Your task to perform on an android device: Go to Google maps Image 0: 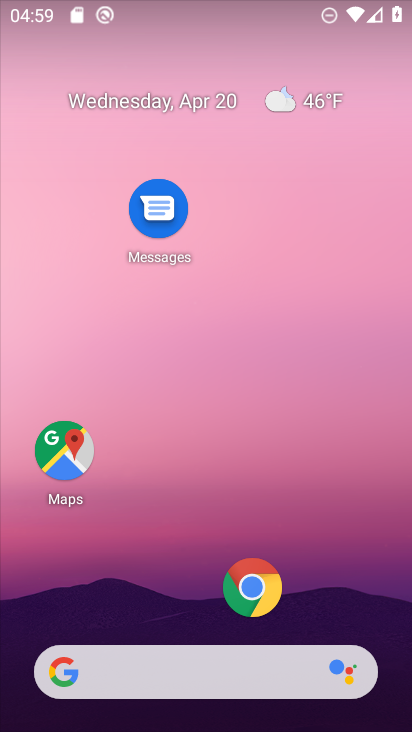
Step 0: click (52, 454)
Your task to perform on an android device: Go to Google maps Image 1: 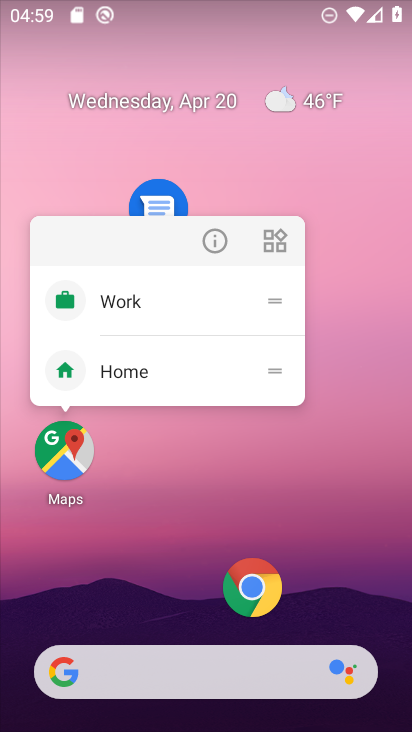
Step 1: click (60, 457)
Your task to perform on an android device: Go to Google maps Image 2: 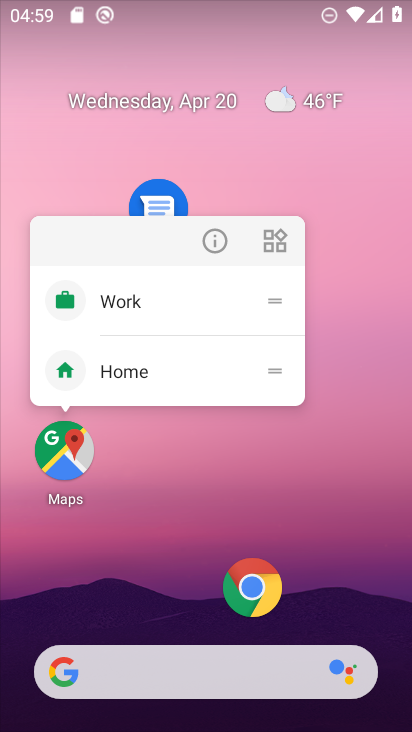
Step 2: click (73, 478)
Your task to perform on an android device: Go to Google maps Image 3: 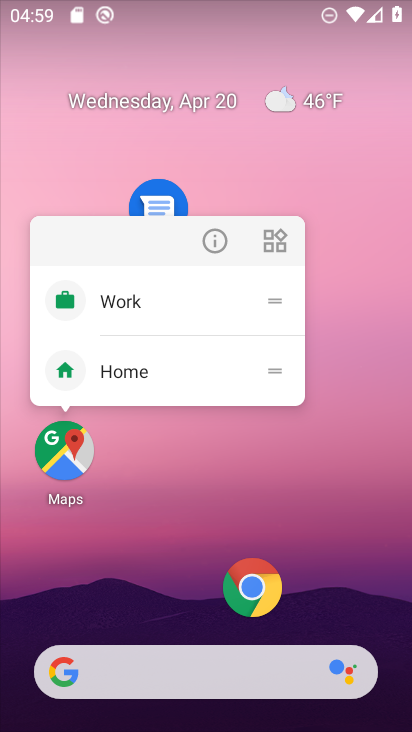
Step 3: click (73, 478)
Your task to perform on an android device: Go to Google maps Image 4: 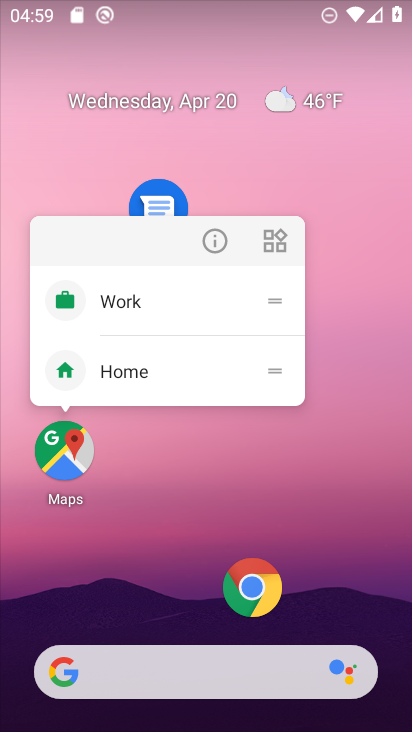
Step 4: click (68, 447)
Your task to perform on an android device: Go to Google maps Image 5: 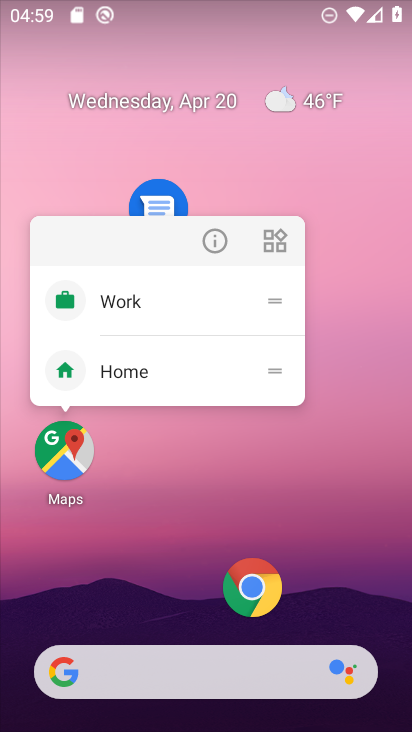
Step 5: click (182, 502)
Your task to perform on an android device: Go to Google maps Image 6: 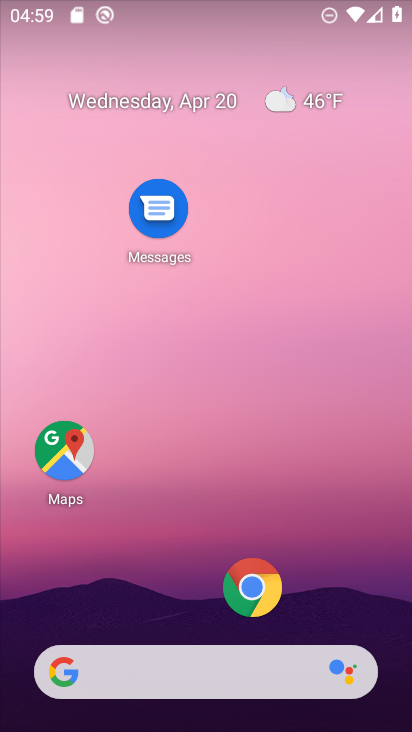
Step 6: click (85, 461)
Your task to perform on an android device: Go to Google maps Image 7: 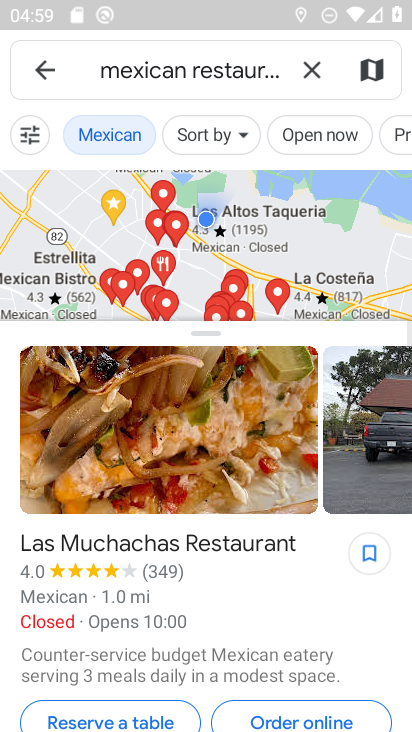
Step 7: click (39, 74)
Your task to perform on an android device: Go to Google maps Image 8: 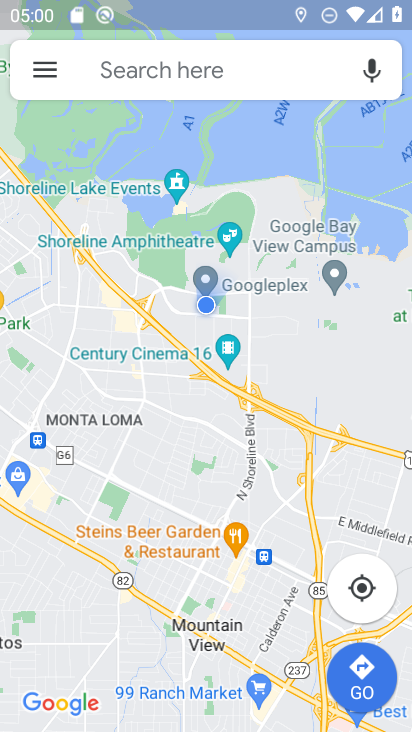
Step 8: task complete